Your task to perform on an android device: Open network settings Image 0: 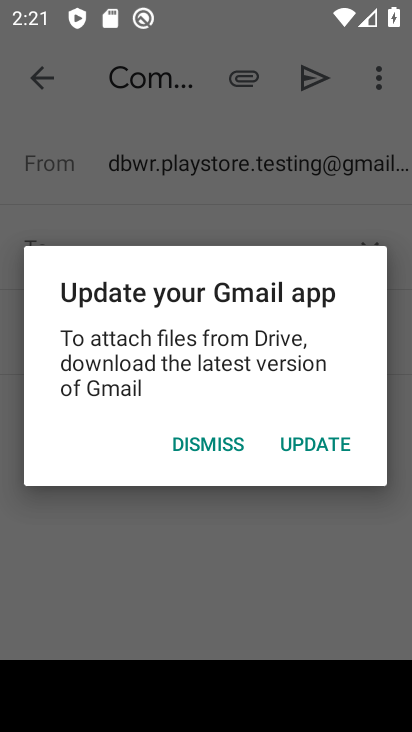
Step 0: press home button
Your task to perform on an android device: Open network settings Image 1: 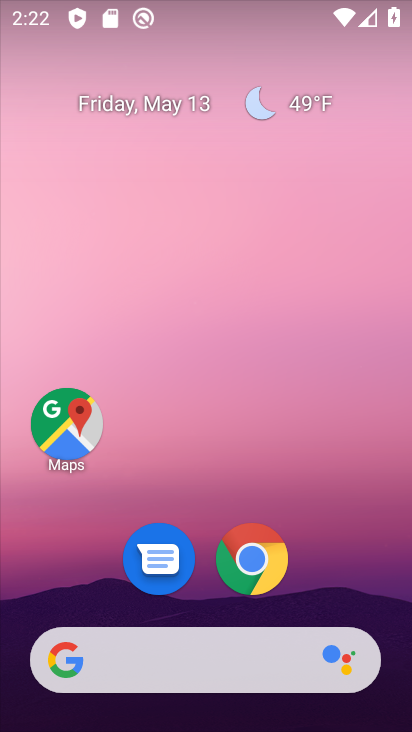
Step 1: drag from (403, 649) to (303, 132)
Your task to perform on an android device: Open network settings Image 2: 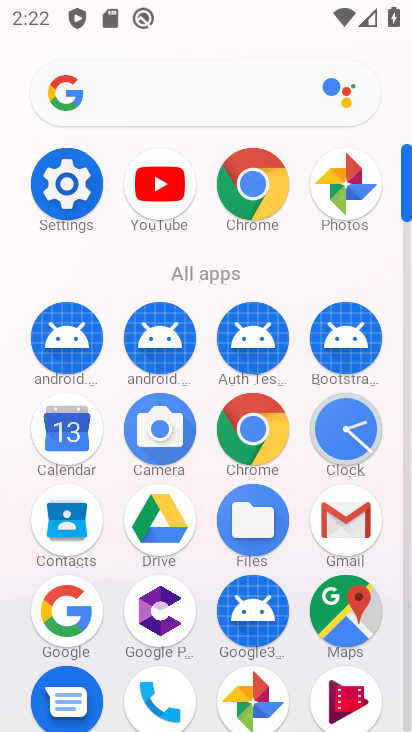
Step 2: click (409, 697)
Your task to perform on an android device: Open network settings Image 3: 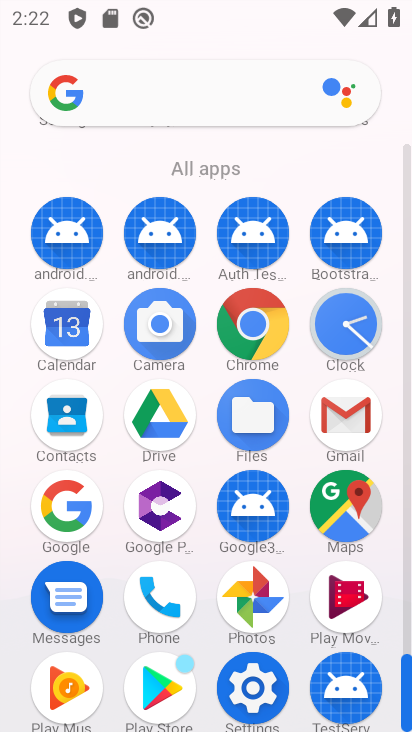
Step 3: click (252, 686)
Your task to perform on an android device: Open network settings Image 4: 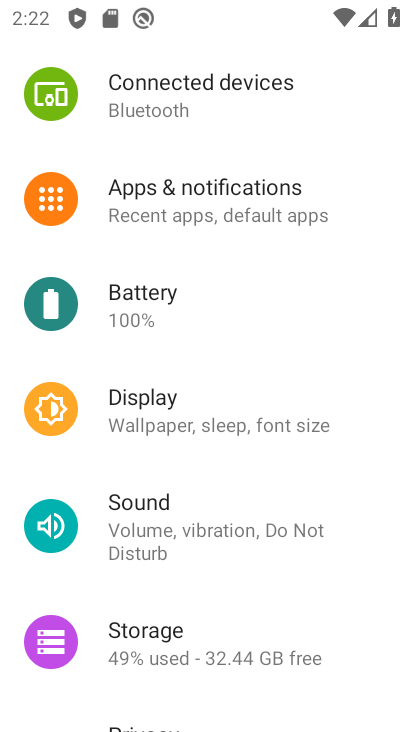
Step 4: drag from (358, 220) to (340, 541)
Your task to perform on an android device: Open network settings Image 5: 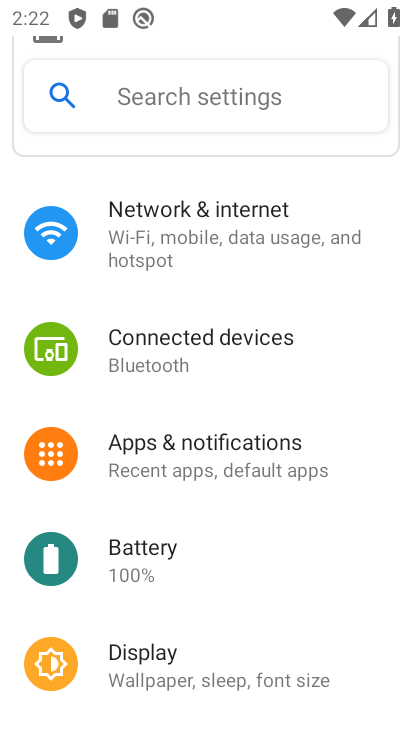
Step 5: click (153, 220)
Your task to perform on an android device: Open network settings Image 6: 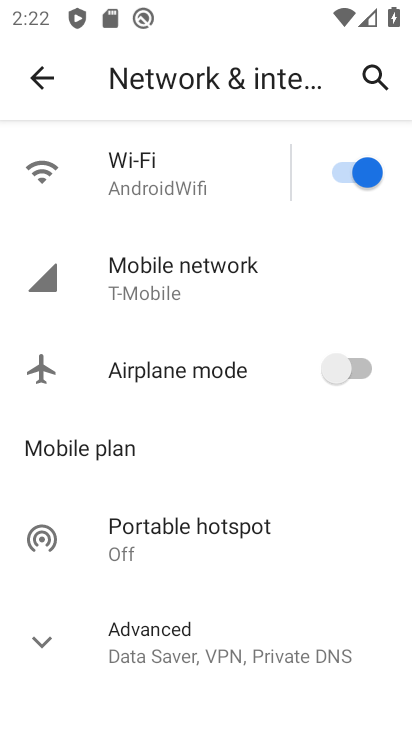
Step 6: click (144, 260)
Your task to perform on an android device: Open network settings Image 7: 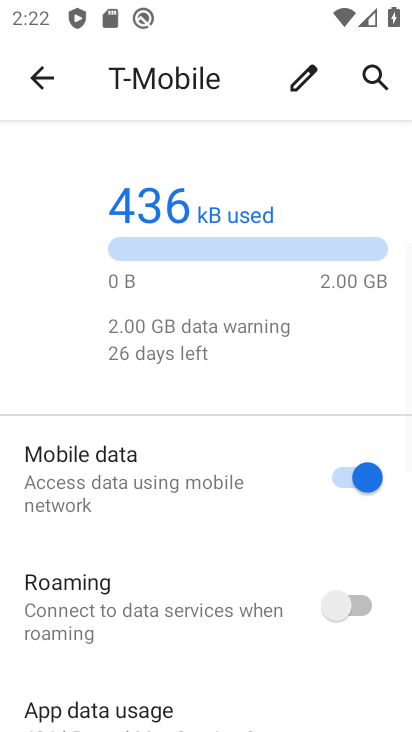
Step 7: drag from (205, 677) to (237, 160)
Your task to perform on an android device: Open network settings Image 8: 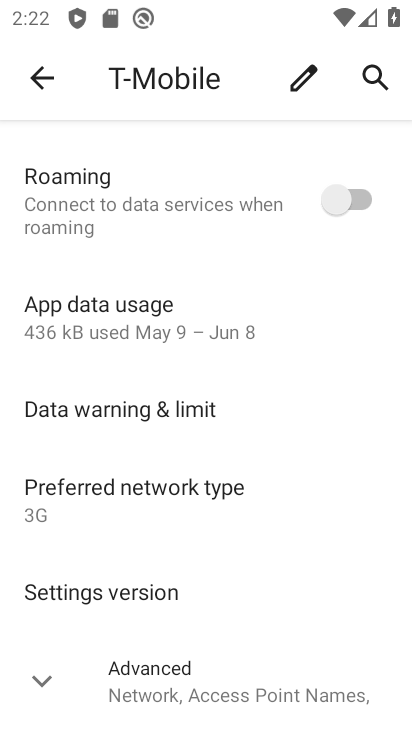
Step 8: click (39, 684)
Your task to perform on an android device: Open network settings Image 9: 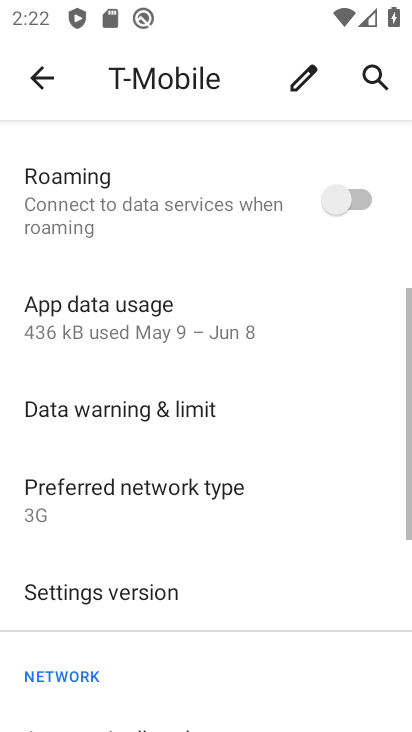
Step 9: task complete